Your task to perform on an android device: turn on priority inbox in the gmail app Image 0: 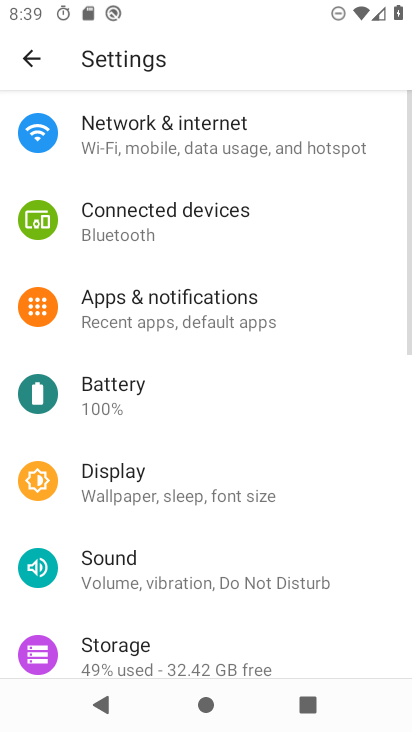
Step 0: press home button
Your task to perform on an android device: turn on priority inbox in the gmail app Image 1: 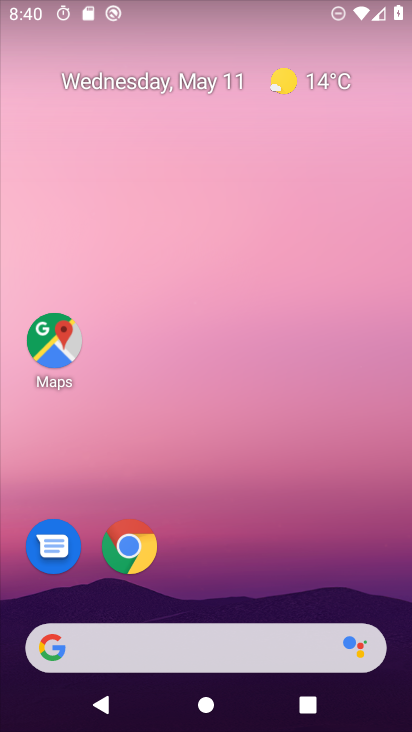
Step 1: drag from (212, 645) to (183, 114)
Your task to perform on an android device: turn on priority inbox in the gmail app Image 2: 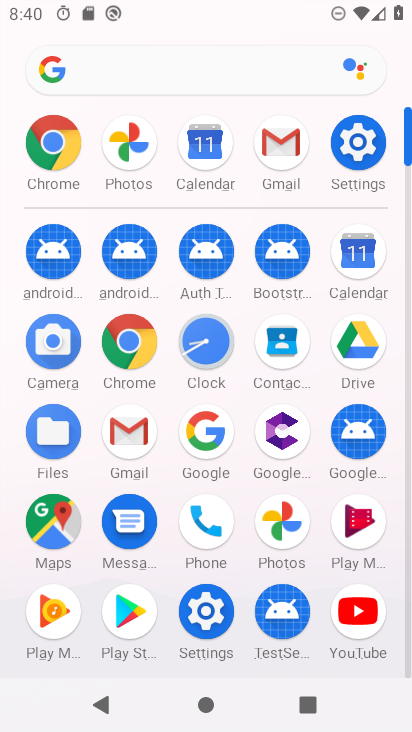
Step 2: click (146, 445)
Your task to perform on an android device: turn on priority inbox in the gmail app Image 3: 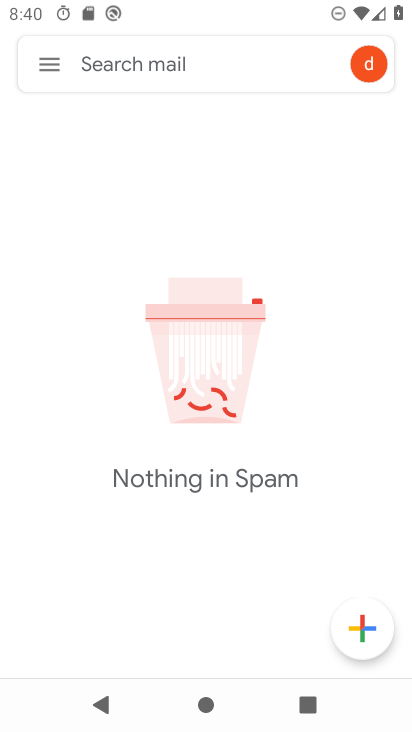
Step 3: click (44, 64)
Your task to perform on an android device: turn on priority inbox in the gmail app Image 4: 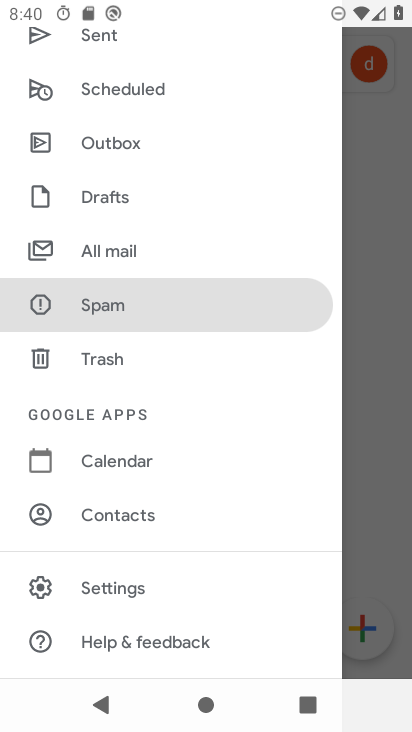
Step 4: click (112, 592)
Your task to perform on an android device: turn on priority inbox in the gmail app Image 5: 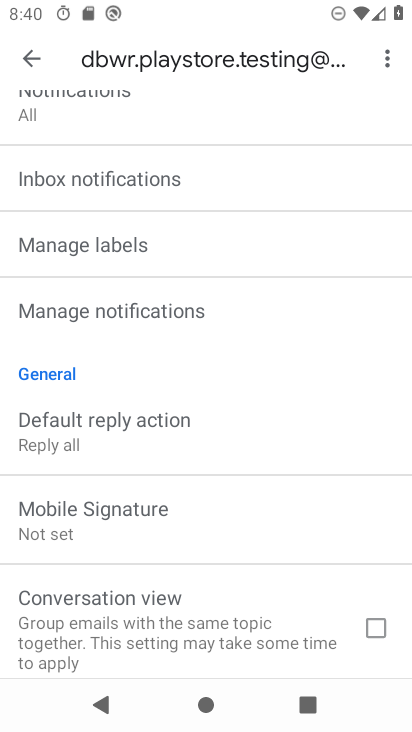
Step 5: drag from (90, 161) to (137, 594)
Your task to perform on an android device: turn on priority inbox in the gmail app Image 6: 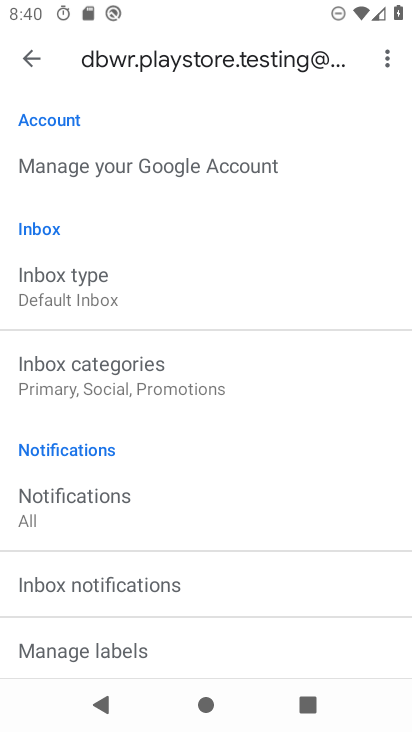
Step 6: click (106, 288)
Your task to perform on an android device: turn on priority inbox in the gmail app Image 7: 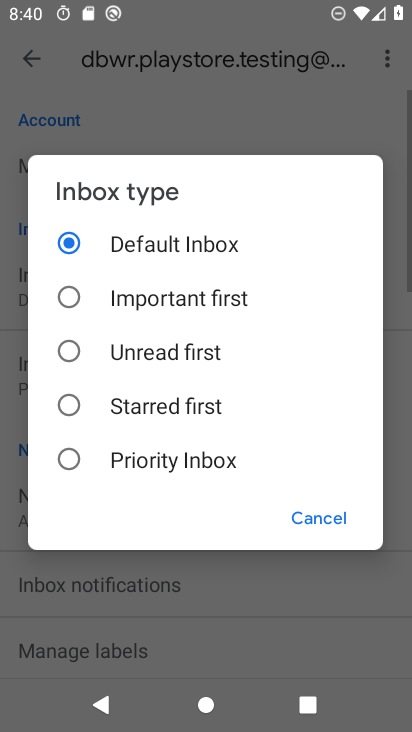
Step 7: click (119, 456)
Your task to perform on an android device: turn on priority inbox in the gmail app Image 8: 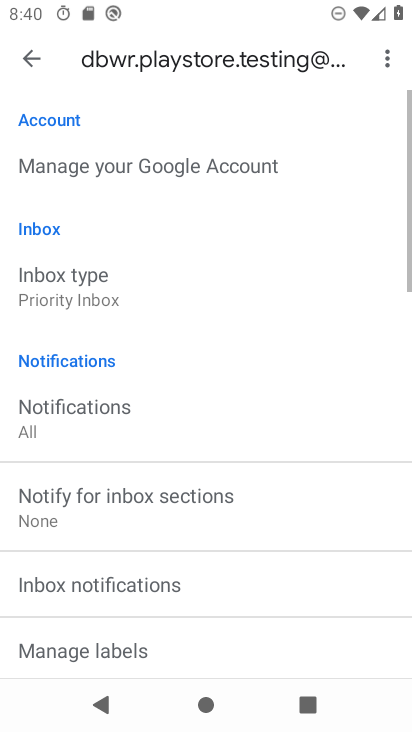
Step 8: task complete